Your task to perform on an android device: Open my contact list Image 0: 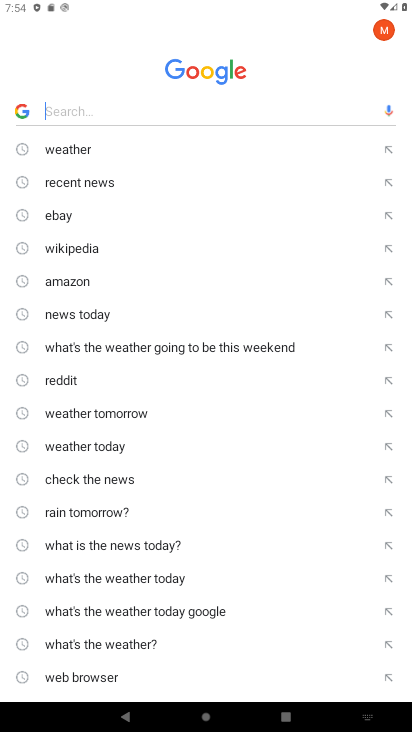
Step 0: press back button
Your task to perform on an android device: Open my contact list Image 1: 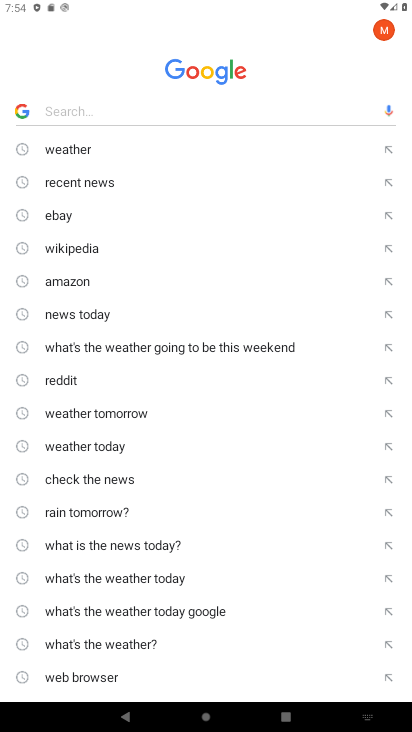
Step 1: press back button
Your task to perform on an android device: Open my contact list Image 2: 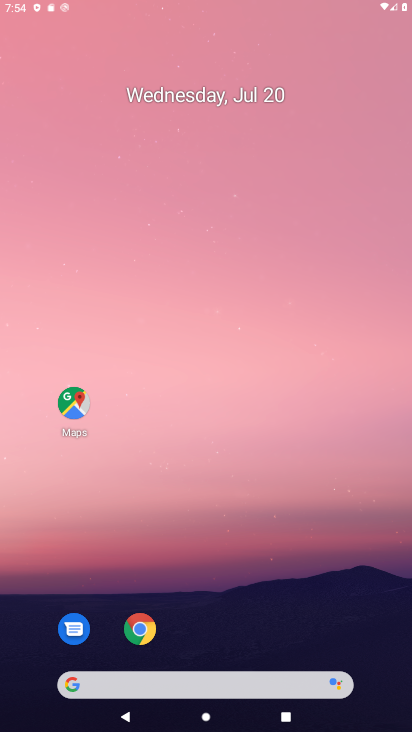
Step 2: press back button
Your task to perform on an android device: Open my contact list Image 3: 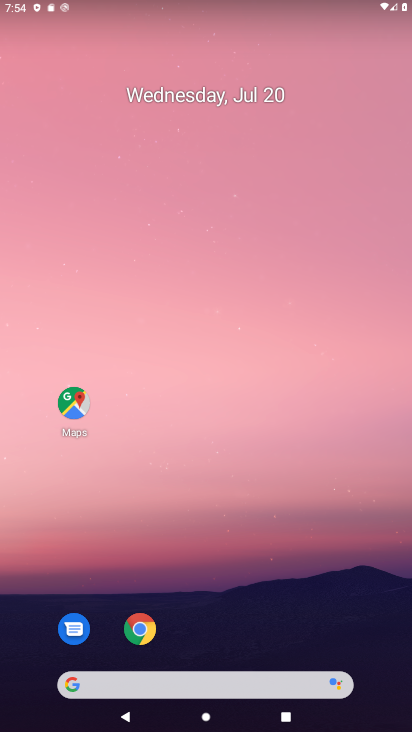
Step 3: drag from (222, 615) to (266, 223)
Your task to perform on an android device: Open my contact list Image 4: 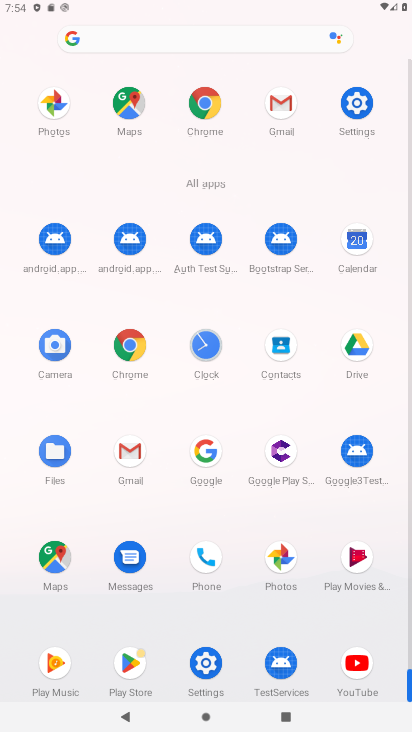
Step 4: click (282, 345)
Your task to perform on an android device: Open my contact list Image 5: 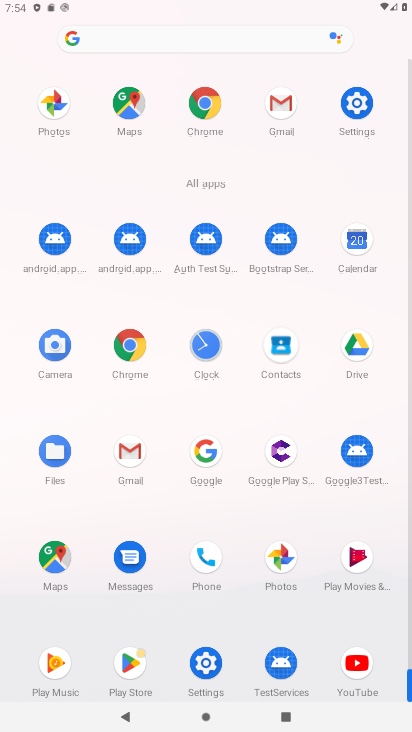
Step 5: click (281, 345)
Your task to perform on an android device: Open my contact list Image 6: 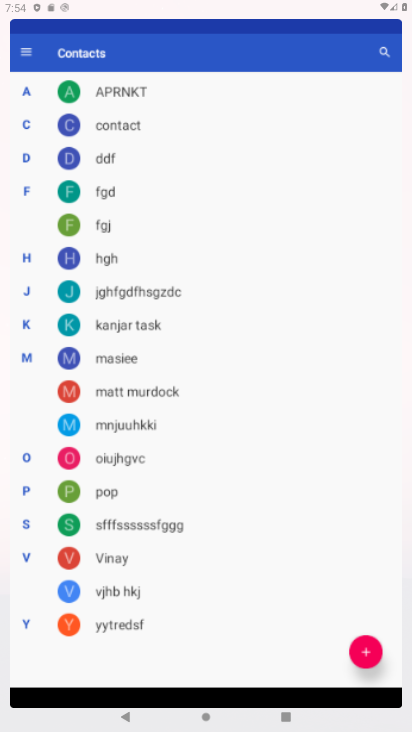
Step 6: click (277, 346)
Your task to perform on an android device: Open my contact list Image 7: 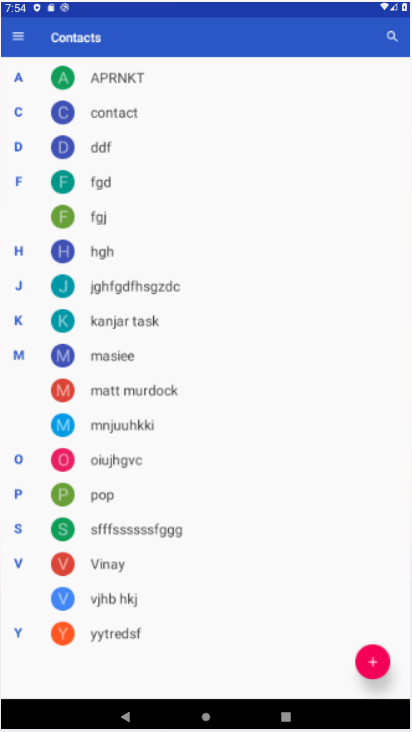
Step 7: click (276, 348)
Your task to perform on an android device: Open my contact list Image 8: 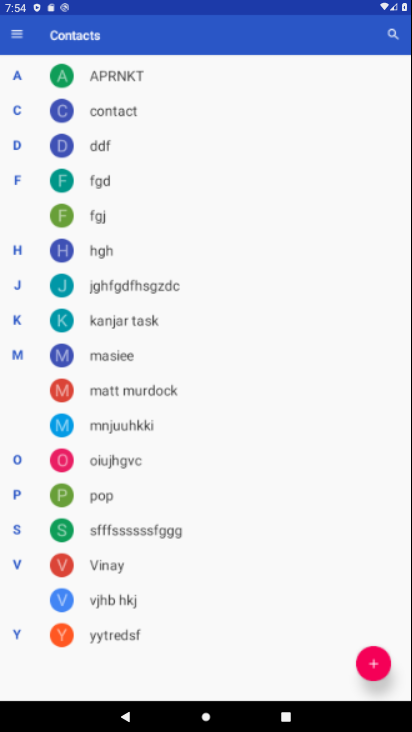
Step 8: click (276, 349)
Your task to perform on an android device: Open my contact list Image 9: 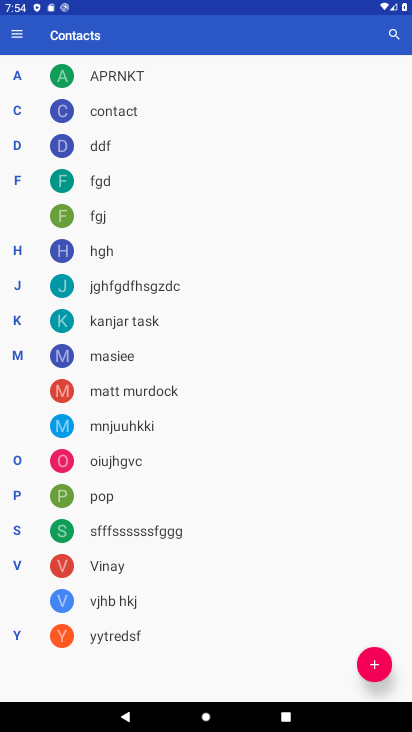
Step 9: task complete